Your task to perform on an android device: Open Youtube and go to "Your channel" Image 0: 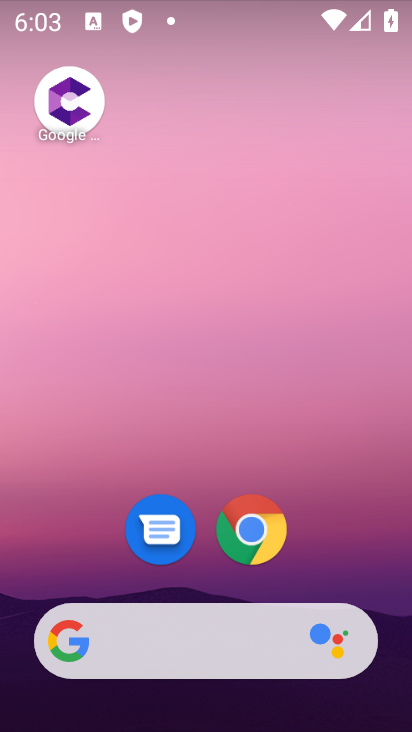
Step 0: drag from (326, 496) to (196, 9)
Your task to perform on an android device: Open Youtube and go to "Your channel" Image 1: 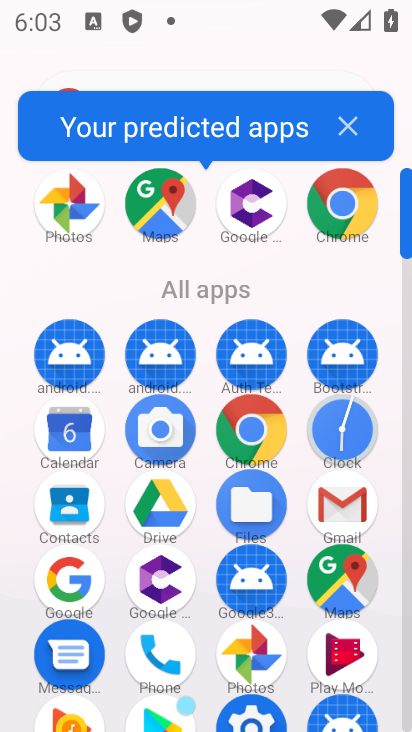
Step 1: drag from (203, 691) to (223, 248)
Your task to perform on an android device: Open Youtube and go to "Your channel" Image 2: 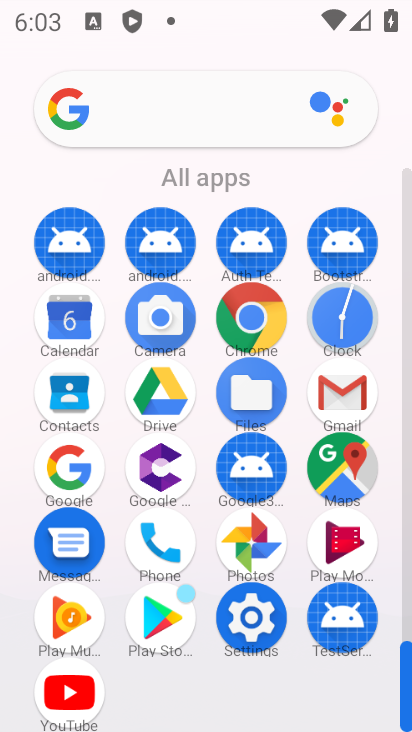
Step 2: click (74, 671)
Your task to perform on an android device: Open Youtube and go to "Your channel" Image 3: 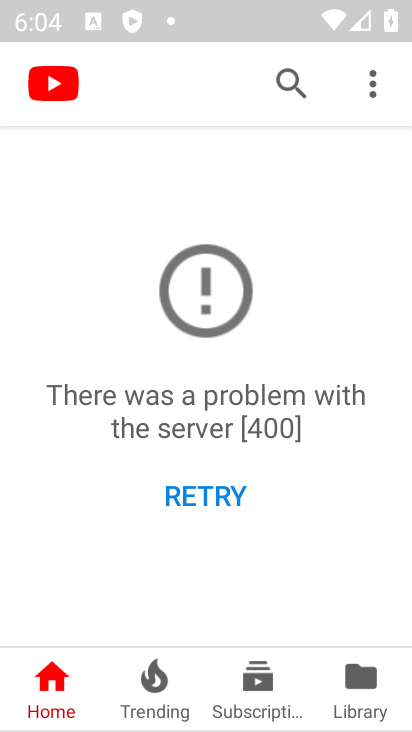
Step 3: click (367, 77)
Your task to perform on an android device: Open Youtube and go to "Your channel" Image 4: 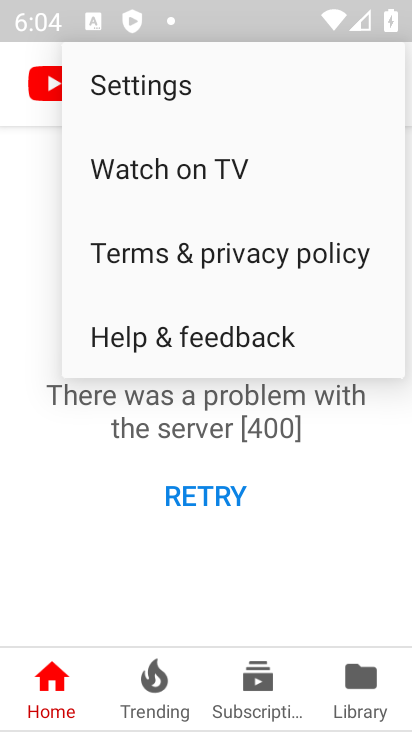
Step 4: click (154, 82)
Your task to perform on an android device: Open Youtube and go to "Your channel" Image 5: 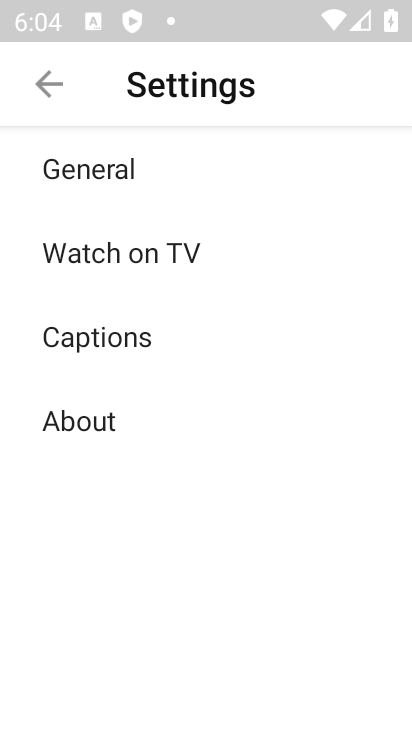
Step 5: click (70, 160)
Your task to perform on an android device: Open Youtube and go to "Your channel" Image 6: 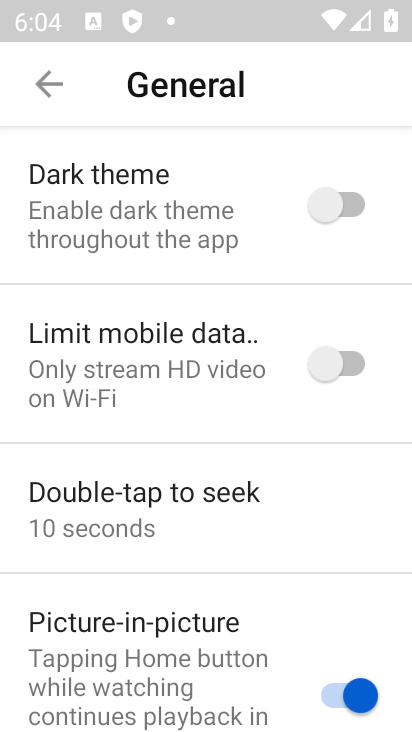
Step 6: click (42, 85)
Your task to perform on an android device: Open Youtube and go to "Your channel" Image 7: 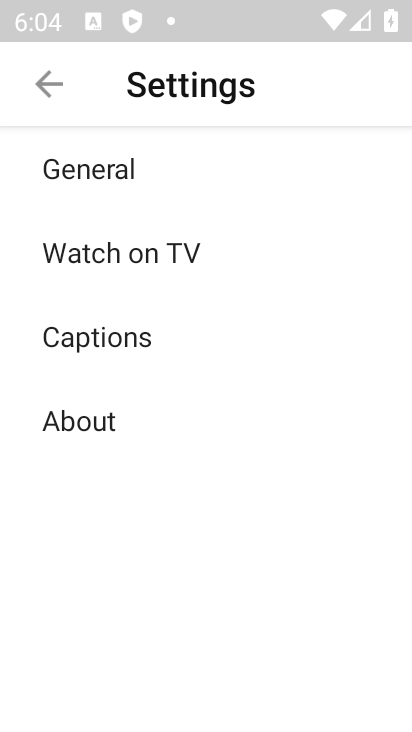
Step 7: click (42, 85)
Your task to perform on an android device: Open Youtube and go to "Your channel" Image 8: 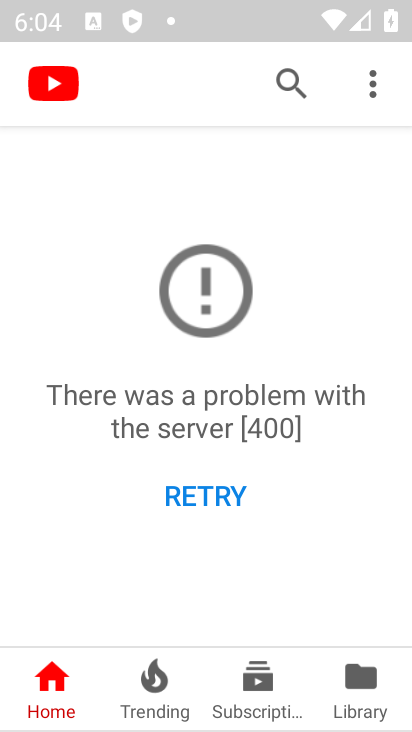
Step 8: click (373, 676)
Your task to perform on an android device: Open Youtube and go to "Your channel" Image 9: 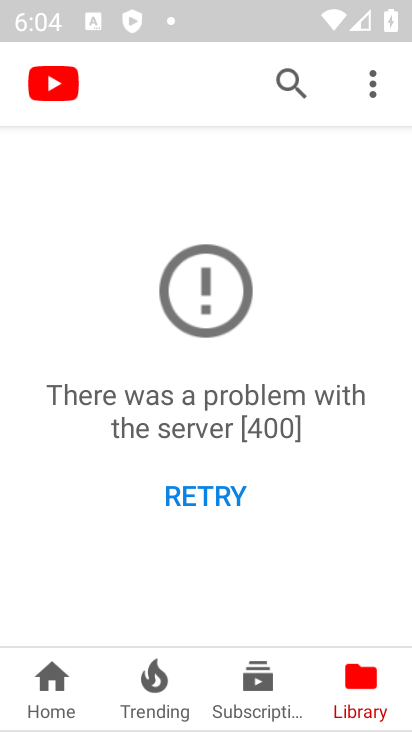
Step 9: click (364, 684)
Your task to perform on an android device: Open Youtube and go to "Your channel" Image 10: 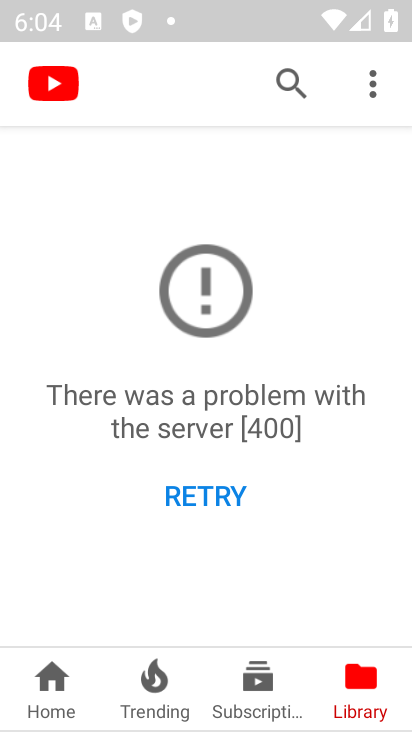
Step 10: click (45, 90)
Your task to perform on an android device: Open Youtube and go to "Your channel" Image 11: 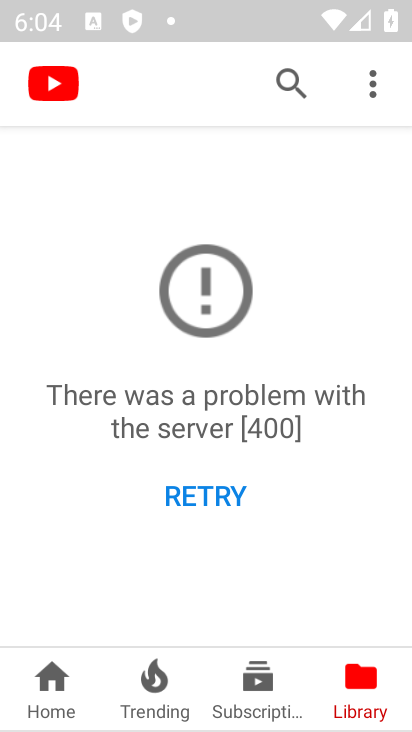
Step 11: click (259, 689)
Your task to perform on an android device: Open Youtube and go to "Your channel" Image 12: 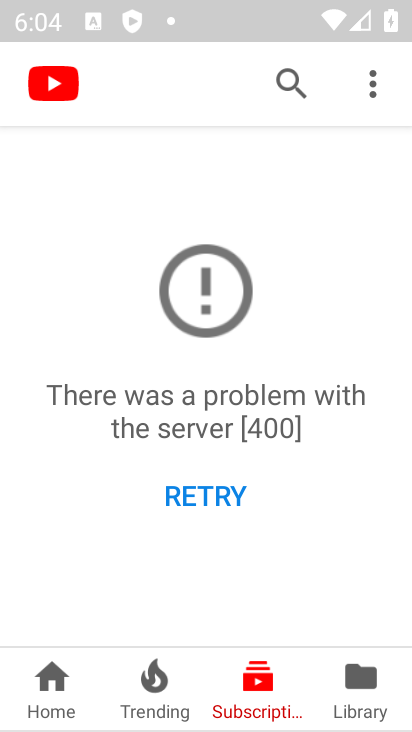
Step 12: task complete